Your task to perform on an android device: turn on javascript in the chrome app Image 0: 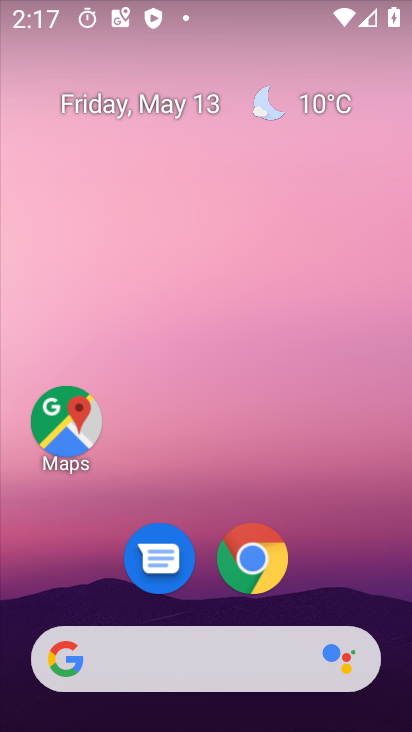
Step 0: click (251, 529)
Your task to perform on an android device: turn on javascript in the chrome app Image 1: 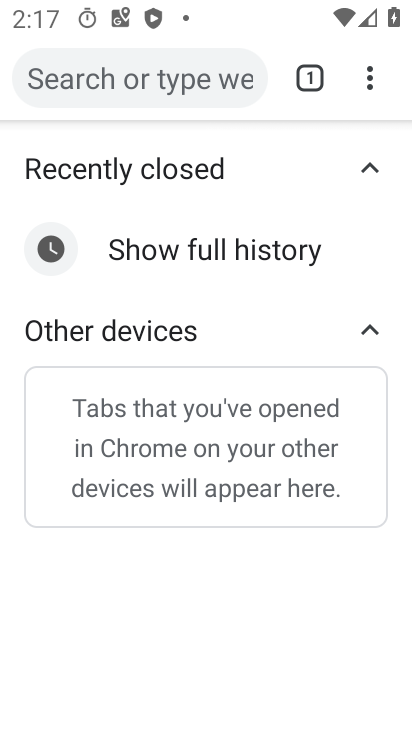
Step 1: click (364, 85)
Your task to perform on an android device: turn on javascript in the chrome app Image 2: 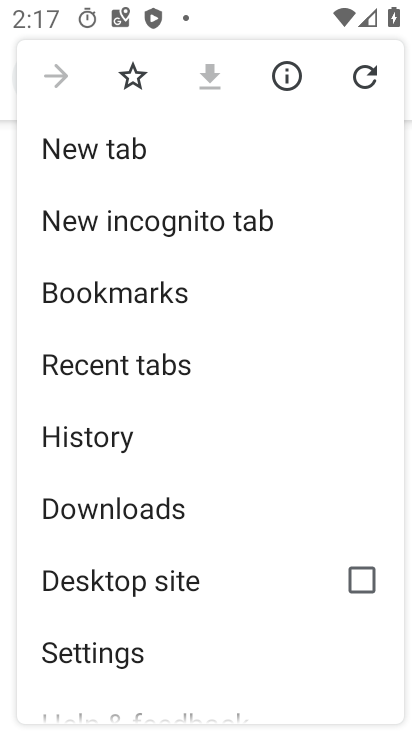
Step 2: drag from (178, 608) to (157, 344)
Your task to perform on an android device: turn on javascript in the chrome app Image 3: 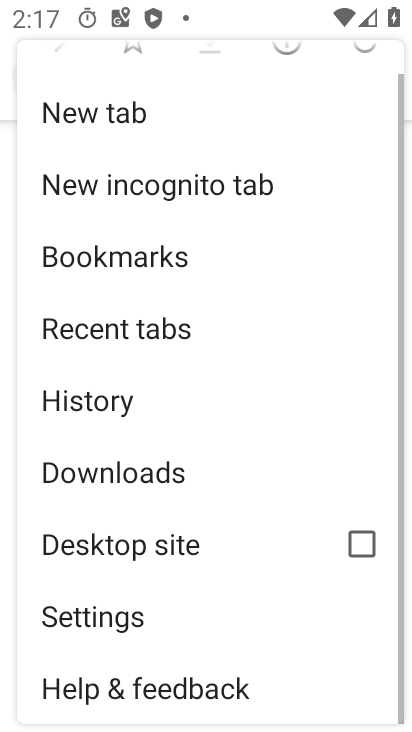
Step 3: click (146, 601)
Your task to perform on an android device: turn on javascript in the chrome app Image 4: 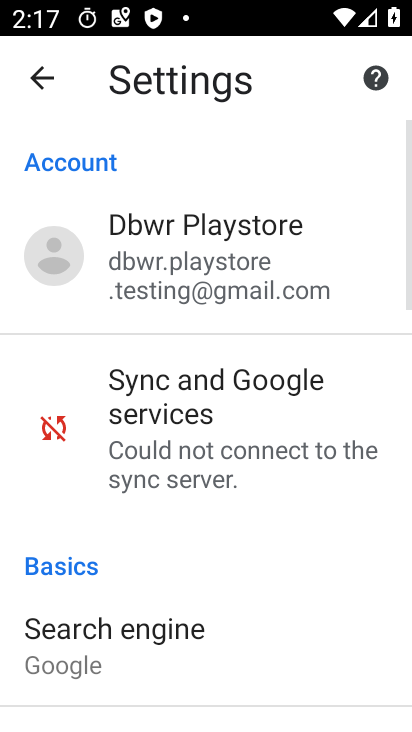
Step 4: drag from (218, 569) to (227, 341)
Your task to perform on an android device: turn on javascript in the chrome app Image 5: 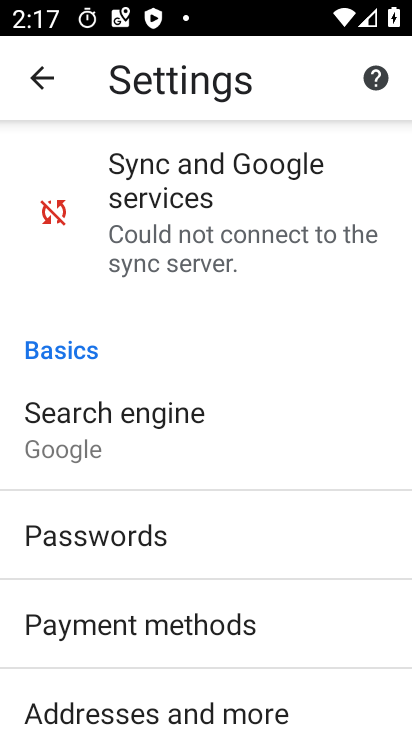
Step 5: drag from (189, 593) to (200, 400)
Your task to perform on an android device: turn on javascript in the chrome app Image 6: 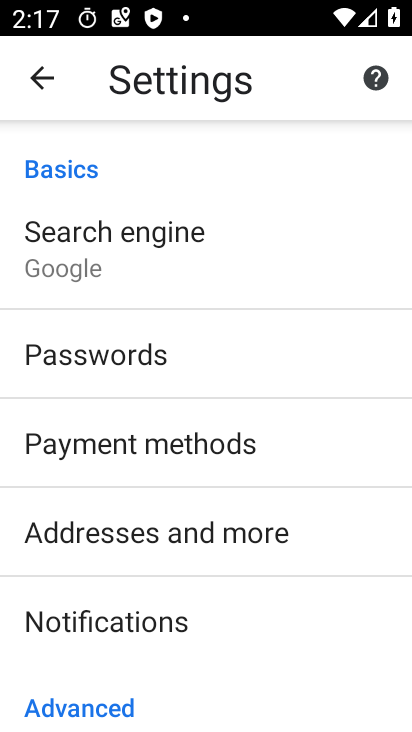
Step 6: drag from (204, 594) to (211, 345)
Your task to perform on an android device: turn on javascript in the chrome app Image 7: 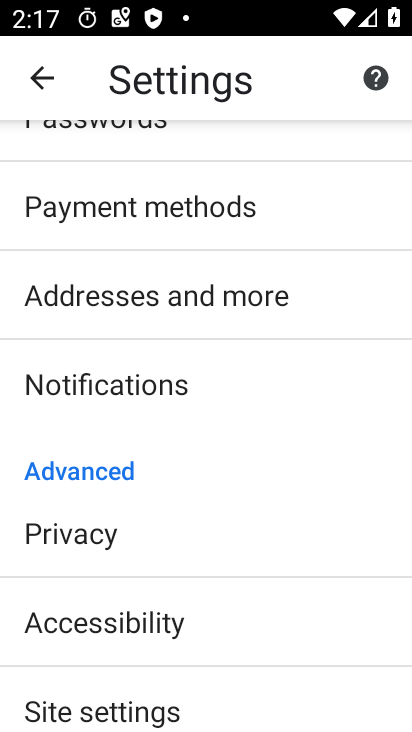
Step 7: drag from (195, 587) to (223, 359)
Your task to perform on an android device: turn on javascript in the chrome app Image 8: 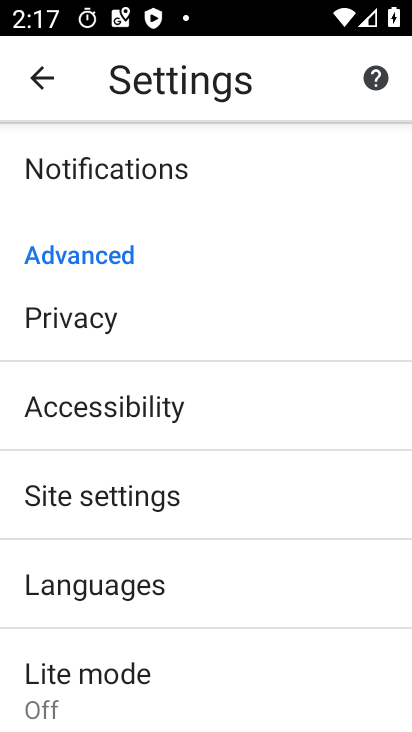
Step 8: click (154, 508)
Your task to perform on an android device: turn on javascript in the chrome app Image 9: 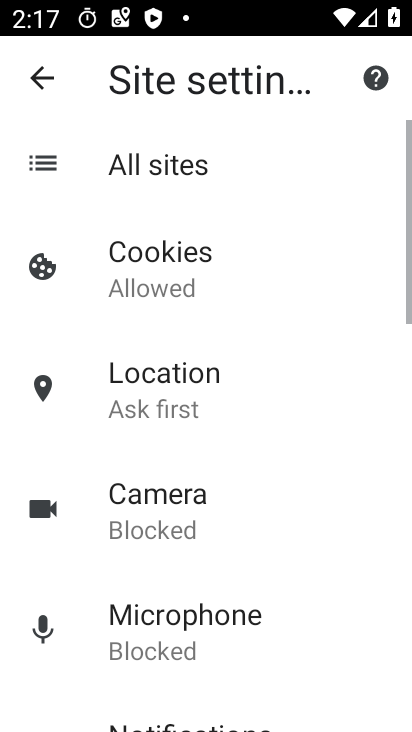
Step 9: drag from (217, 640) to (222, 378)
Your task to perform on an android device: turn on javascript in the chrome app Image 10: 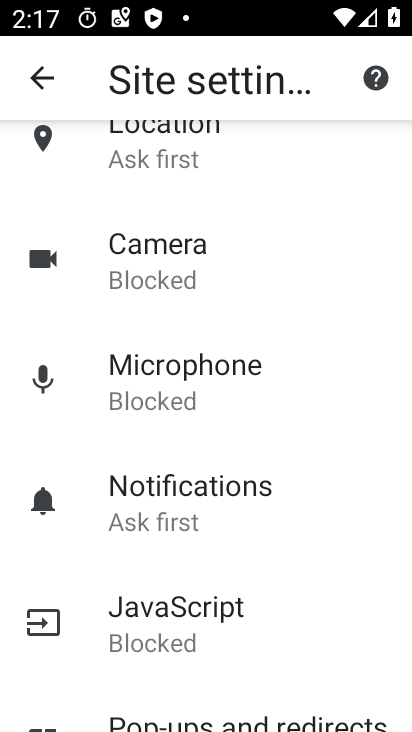
Step 10: click (205, 595)
Your task to perform on an android device: turn on javascript in the chrome app Image 11: 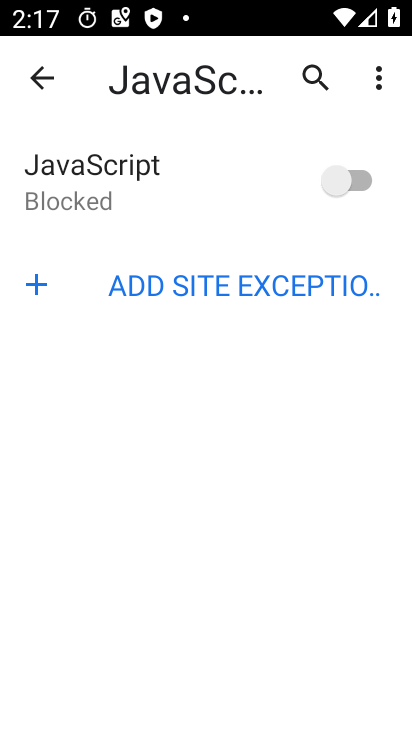
Step 11: click (364, 174)
Your task to perform on an android device: turn on javascript in the chrome app Image 12: 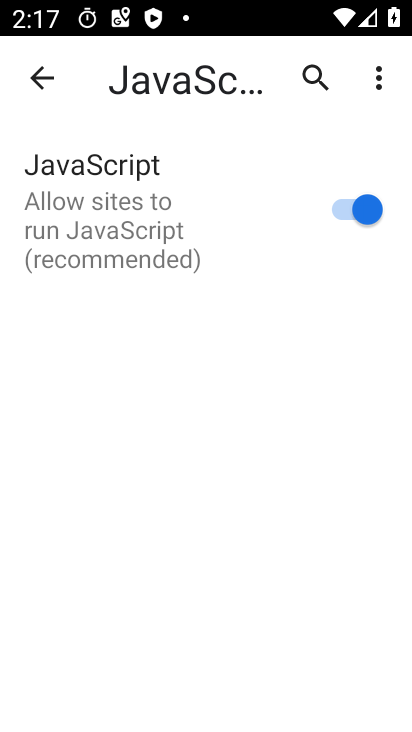
Step 12: task complete